Your task to perform on an android device: find photos in the google photos app Image 0: 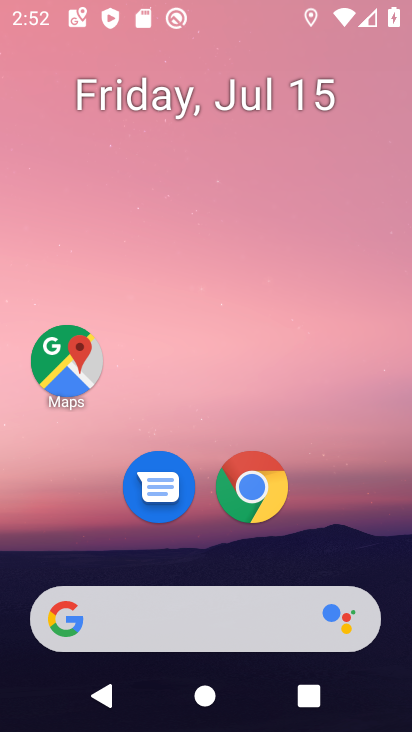
Step 0: drag from (394, 567) to (203, 18)
Your task to perform on an android device: find photos in the google photos app Image 1: 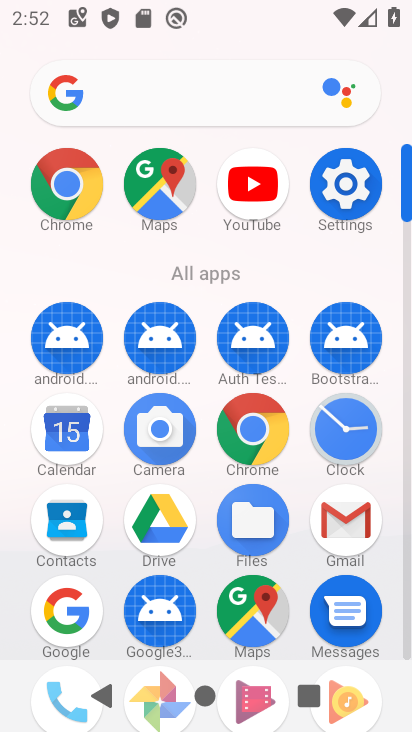
Step 1: click (354, 180)
Your task to perform on an android device: find photos in the google photos app Image 2: 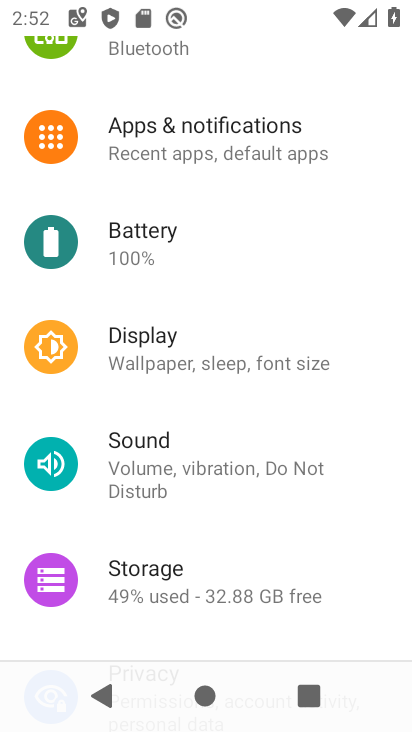
Step 2: press home button
Your task to perform on an android device: find photos in the google photos app Image 3: 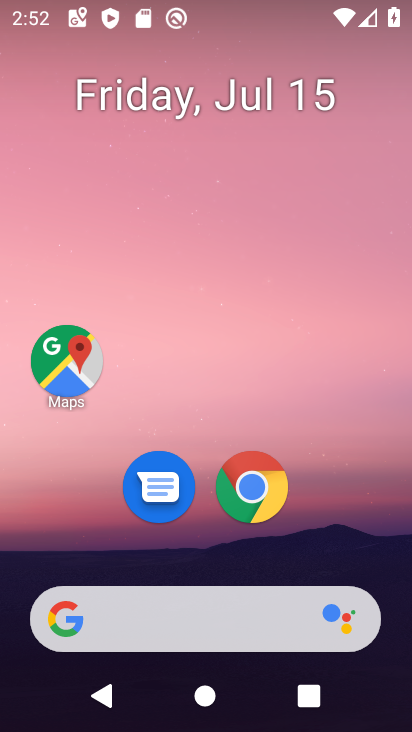
Step 3: drag from (346, 522) to (224, 39)
Your task to perform on an android device: find photos in the google photos app Image 4: 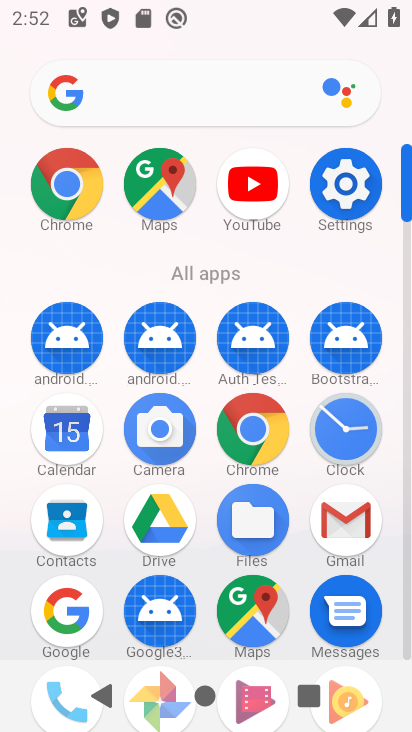
Step 4: click (407, 648)
Your task to perform on an android device: find photos in the google photos app Image 5: 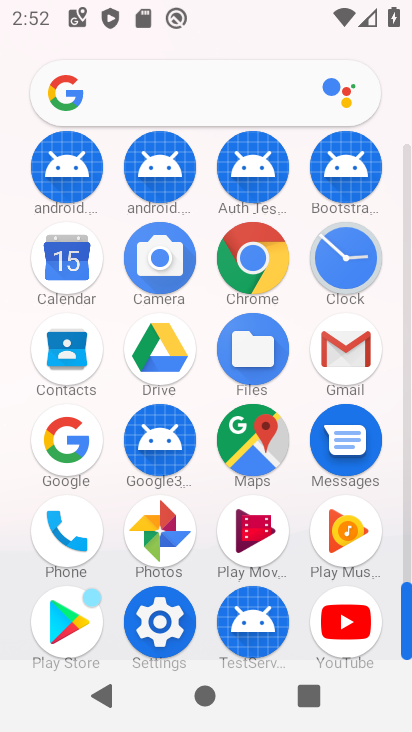
Step 5: click (155, 540)
Your task to perform on an android device: find photos in the google photos app Image 6: 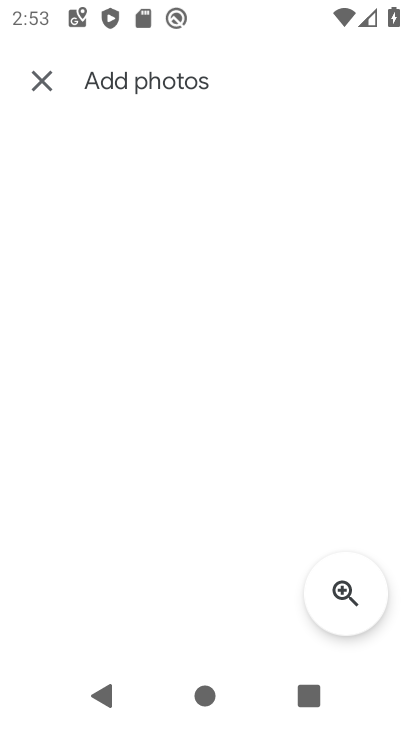
Step 6: click (47, 89)
Your task to perform on an android device: find photos in the google photos app Image 7: 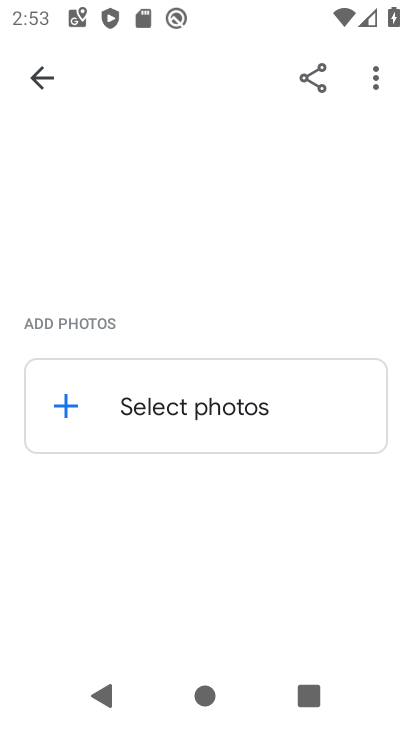
Step 7: click (47, 88)
Your task to perform on an android device: find photos in the google photos app Image 8: 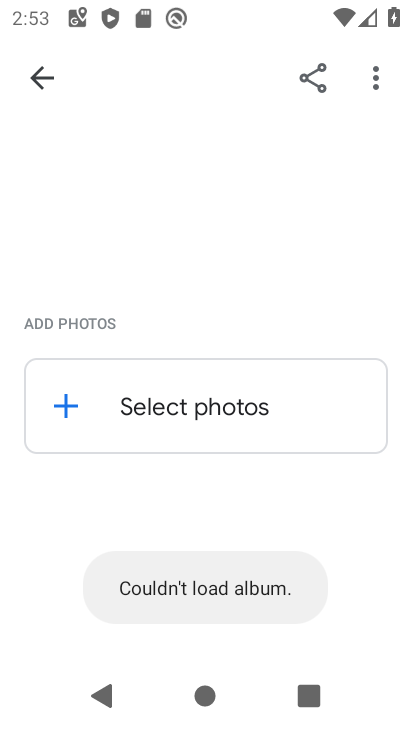
Step 8: press back button
Your task to perform on an android device: find photos in the google photos app Image 9: 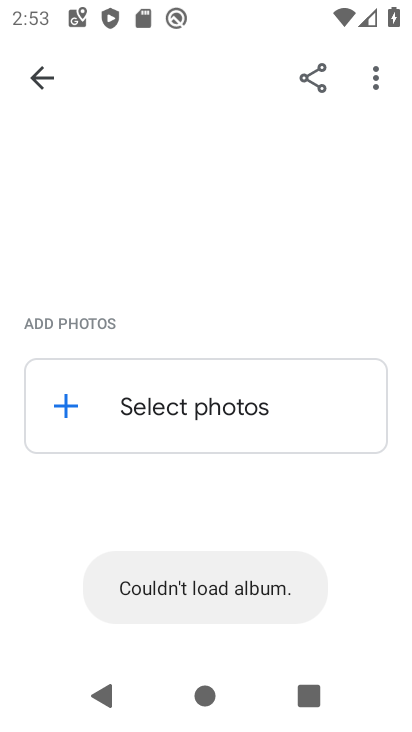
Step 9: press back button
Your task to perform on an android device: find photos in the google photos app Image 10: 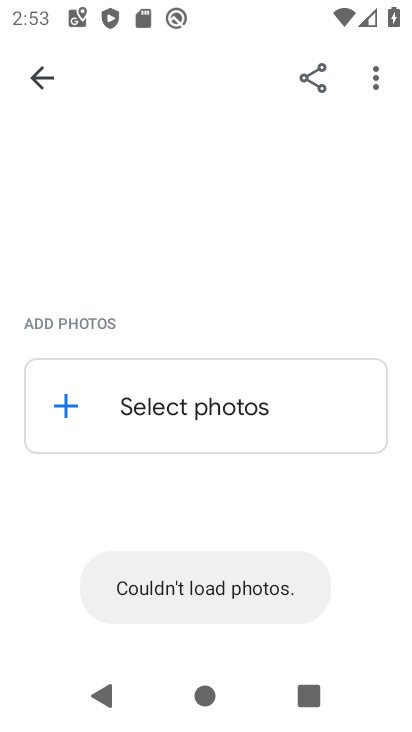
Step 10: press back button
Your task to perform on an android device: find photos in the google photos app Image 11: 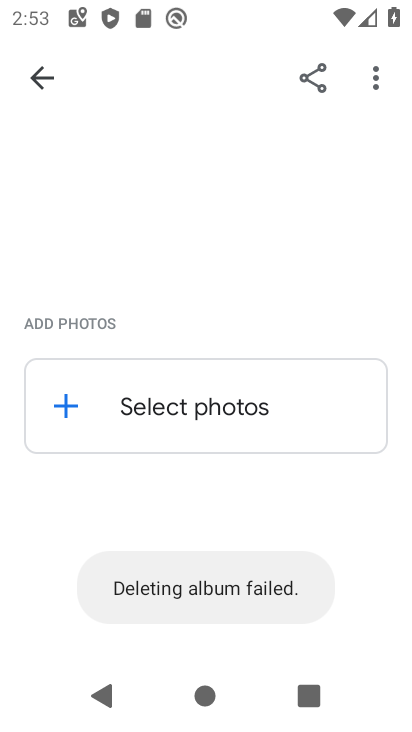
Step 11: press back button
Your task to perform on an android device: find photos in the google photos app Image 12: 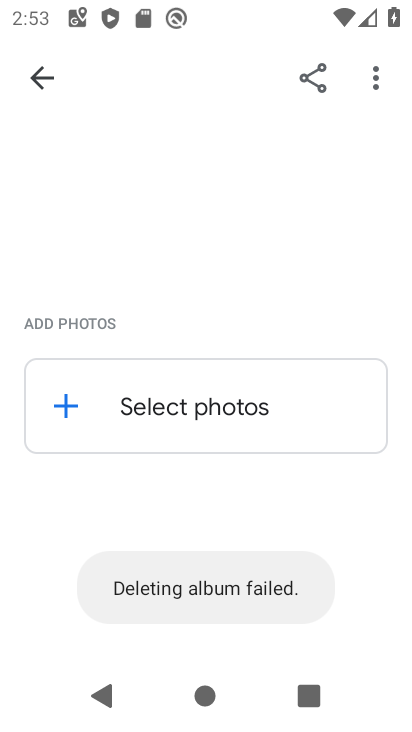
Step 12: press back button
Your task to perform on an android device: find photos in the google photos app Image 13: 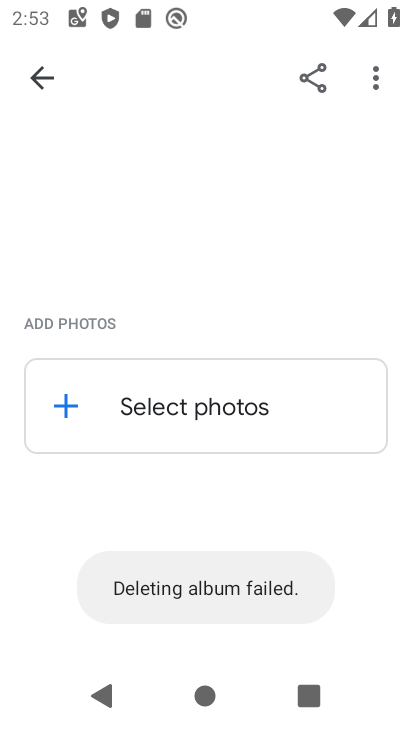
Step 13: click (42, 90)
Your task to perform on an android device: find photos in the google photos app Image 14: 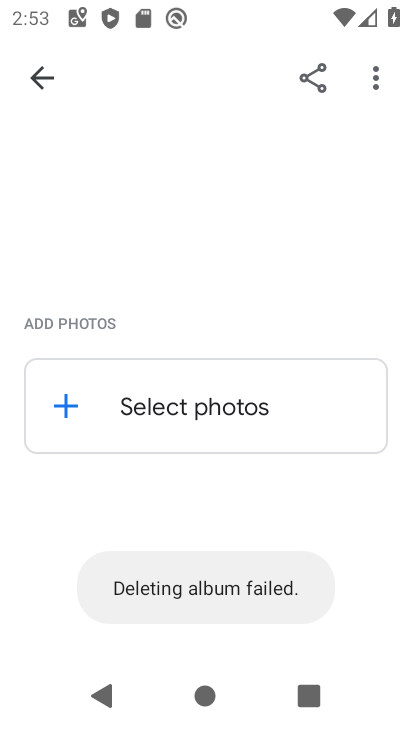
Step 14: task complete